Your task to perform on an android device: turn on priority inbox in the gmail app Image 0: 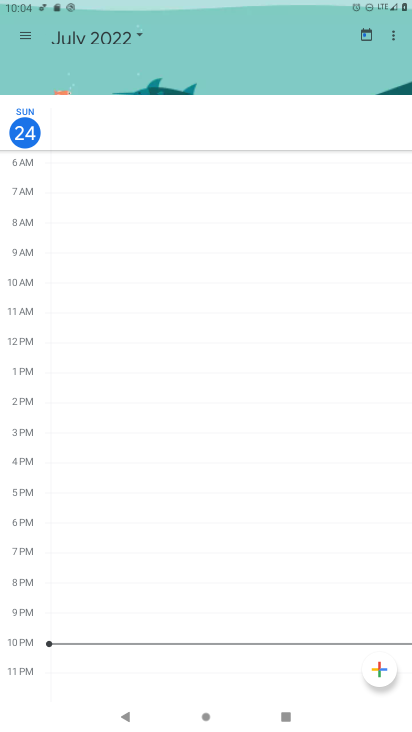
Step 0: press home button
Your task to perform on an android device: turn on priority inbox in the gmail app Image 1: 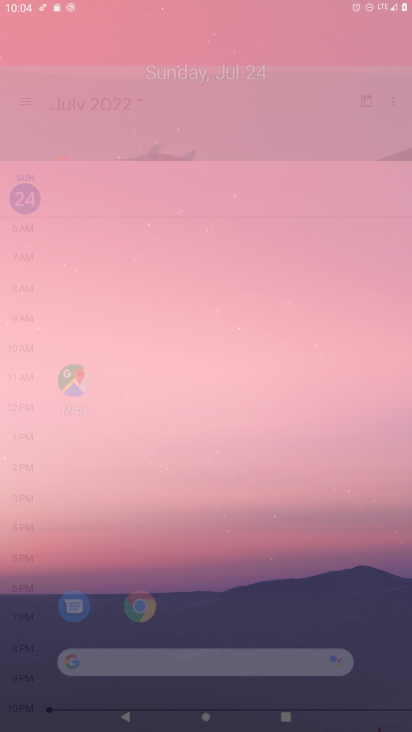
Step 1: drag from (353, 619) to (177, 42)
Your task to perform on an android device: turn on priority inbox in the gmail app Image 2: 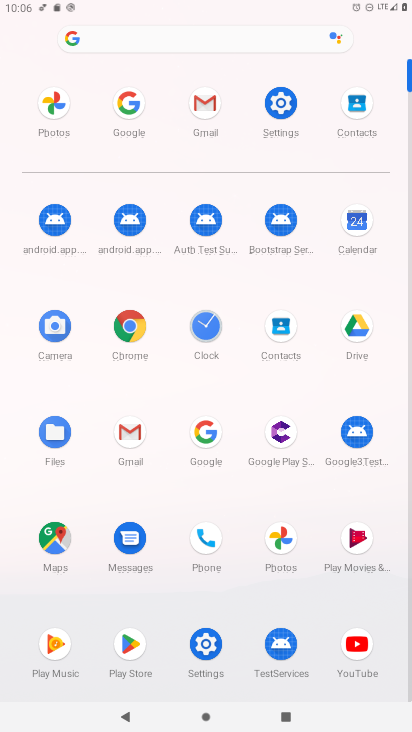
Step 2: click (117, 439)
Your task to perform on an android device: turn on priority inbox in the gmail app Image 3: 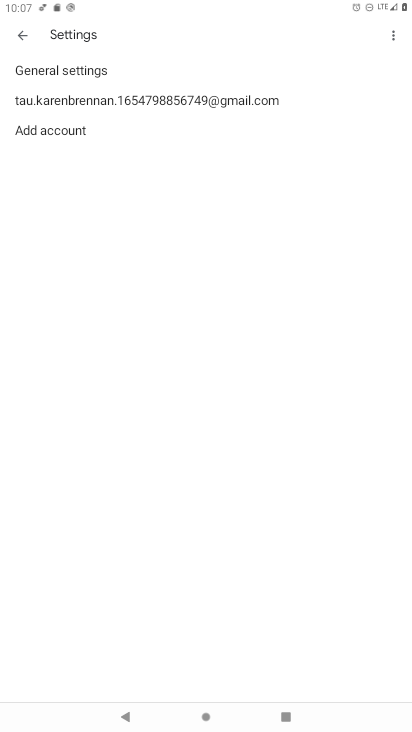
Step 3: click (148, 105)
Your task to perform on an android device: turn on priority inbox in the gmail app Image 4: 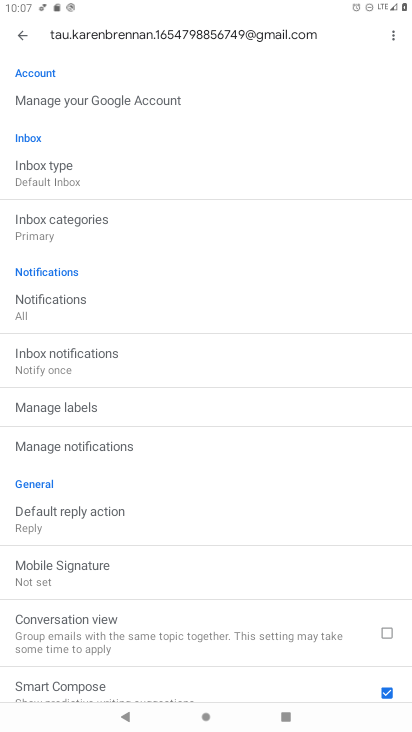
Step 4: click (79, 185)
Your task to perform on an android device: turn on priority inbox in the gmail app Image 5: 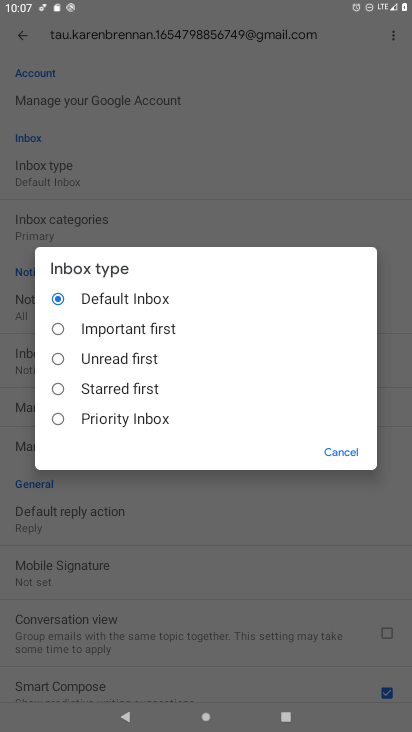
Step 5: click (69, 417)
Your task to perform on an android device: turn on priority inbox in the gmail app Image 6: 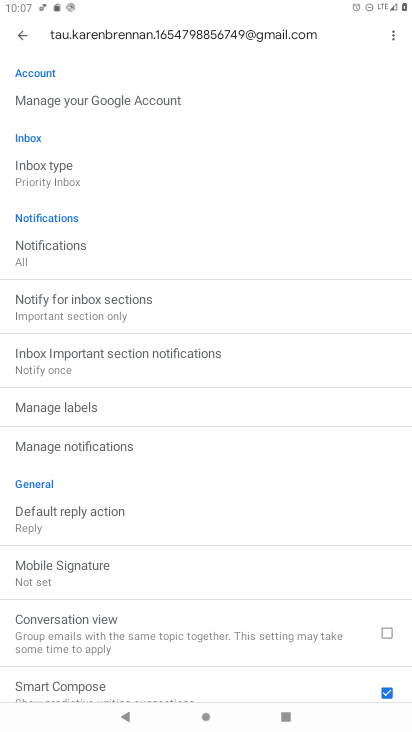
Step 6: task complete